Your task to perform on an android device: What's on my calendar tomorrow? Image 0: 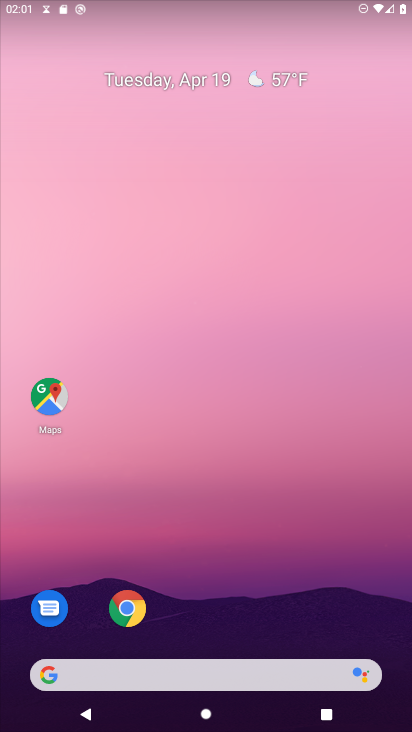
Step 0: drag from (198, 615) to (96, 95)
Your task to perform on an android device: What's on my calendar tomorrow? Image 1: 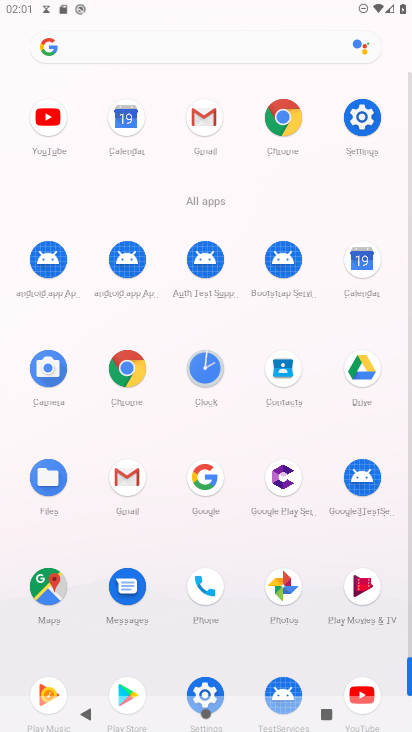
Step 1: click (365, 259)
Your task to perform on an android device: What's on my calendar tomorrow? Image 2: 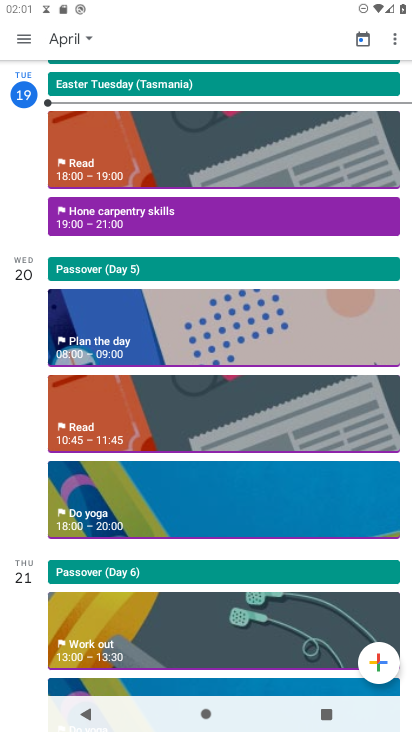
Step 2: task complete